Your task to perform on an android device: open chrome privacy settings Image 0: 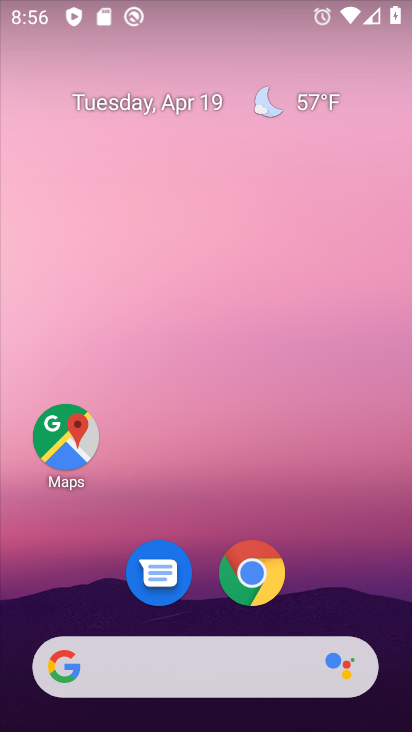
Step 0: click (247, 580)
Your task to perform on an android device: open chrome privacy settings Image 1: 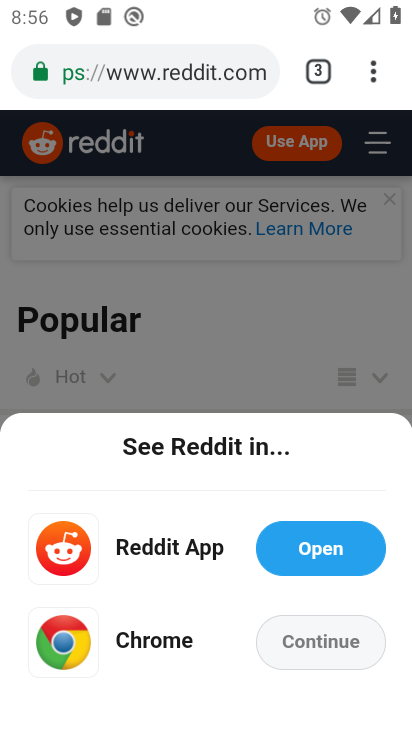
Step 1: click (373, 73)
Your task to perform on an android device: open chrome privacy settings Image 2: 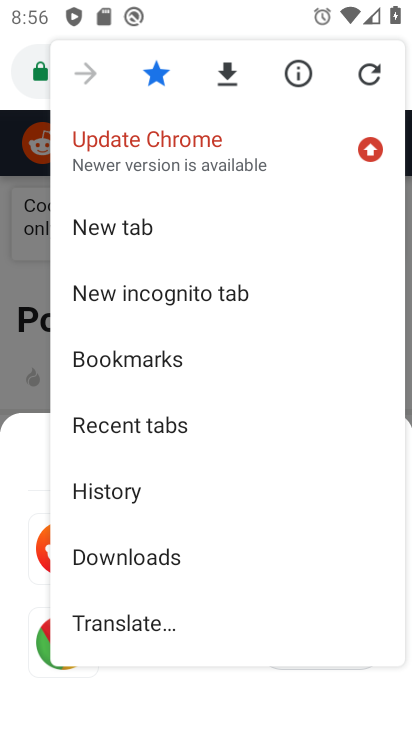
Step 2: drag from (176, 513) to (170, 181)
Your task to perform on an android device: open chrome privacy settings Image 3: 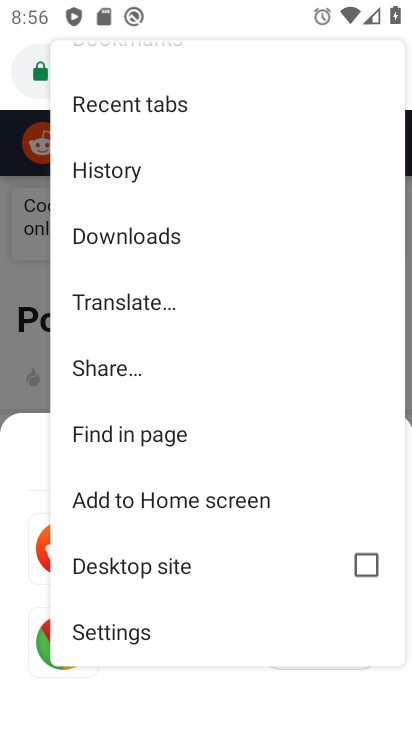
Step 3: click (108, 637)
Your task to perform on an android device: open chrome privacy settings Image 4: 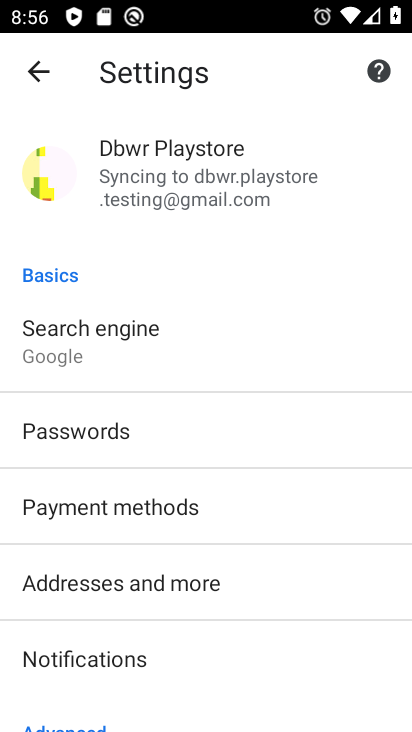
Step 4: drag from (351, 602) to (379, 242)
Your task to perform on an android device: open chrome privacy settings Image 5: 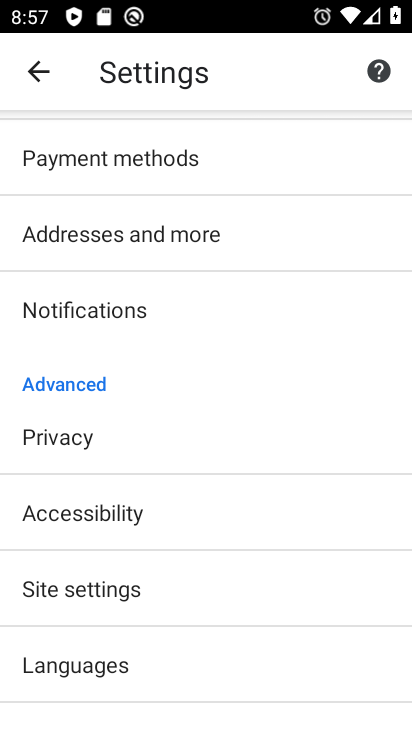
Step 5: click (67, 436)
Your task to perform on an android device: open chrome privacy settings Image 6: 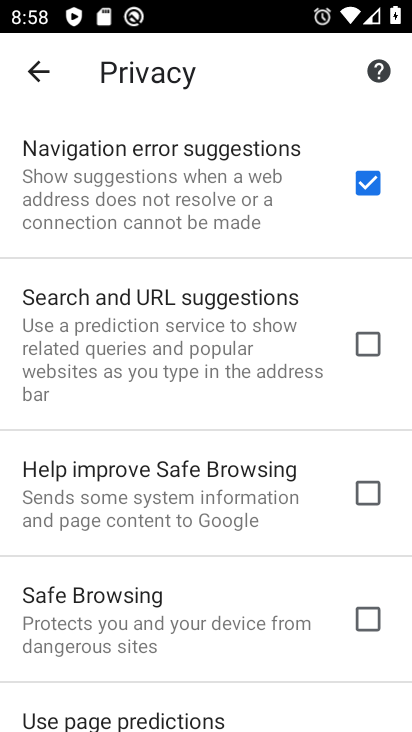
Step 6: task complete